Your task to perform on an android device: delete a single message in the gmail app Image 0: 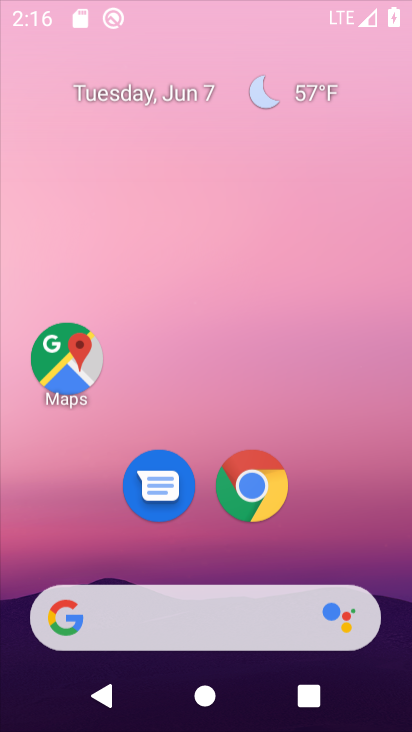
Step 0: click (184, 56)
Your task to perform on an android device: delete a single message in the gmail app Image 1: 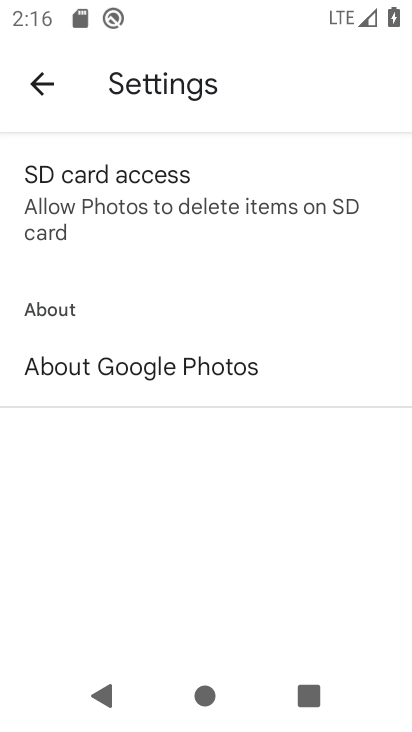
Step 1: press home button
Your task to perform on an android device: delete a single message in the gmail app Image 2: 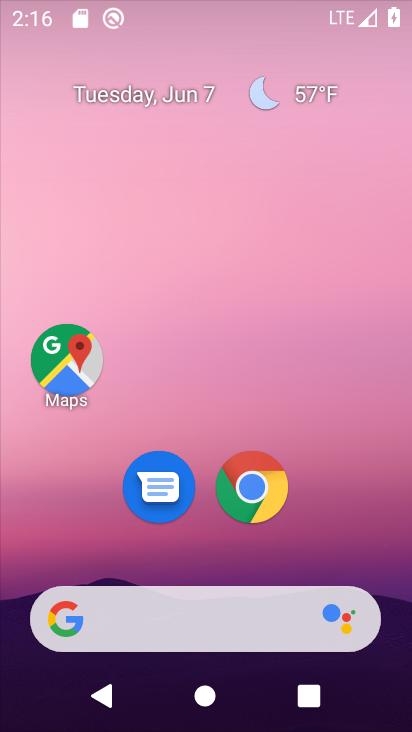
Step 2: drag from (215, 564) to (142, 13)
Your task to perform on an android device: delete a single message in the gmail app Image 3: 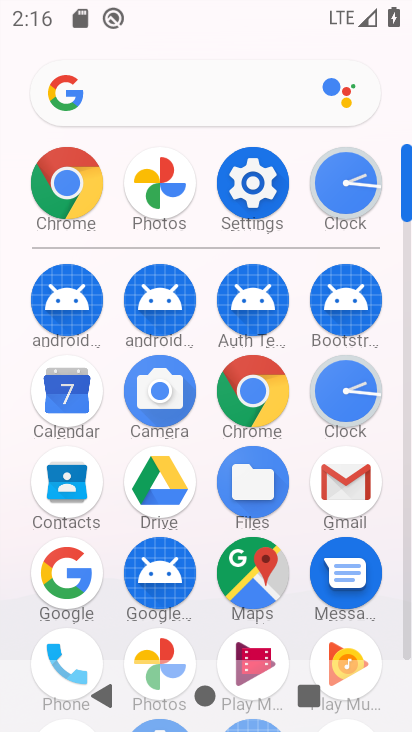
Step 3: click (360, 498)
Your task to perform on an android device: delete a single message in the gmail app Image 4: 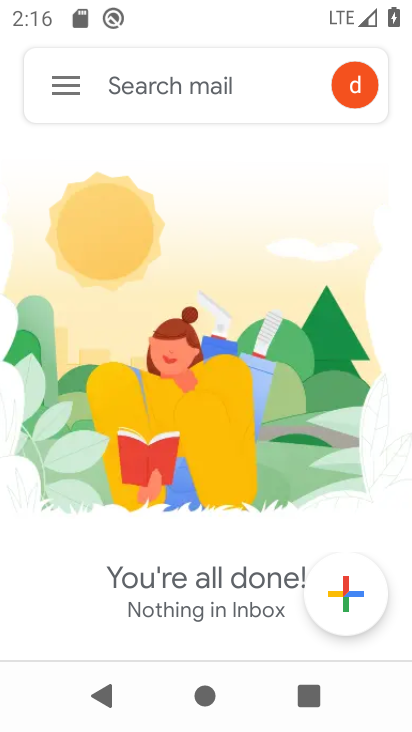
Step 4: task complete